Your task to perform on an android device: turn on priority inbox in the gmail app Image 0: 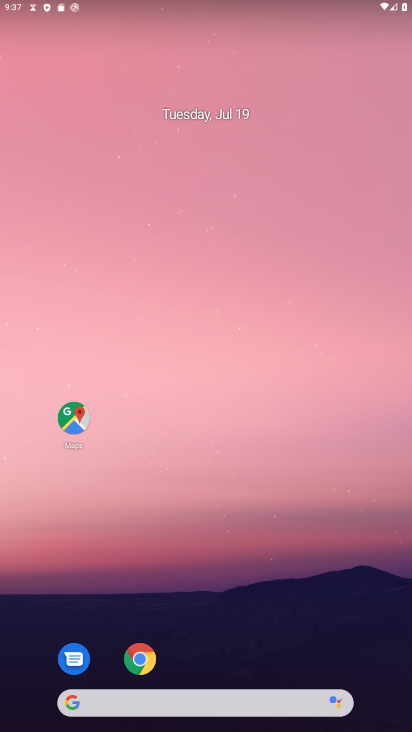
Step 0: drag from (227, 625) to (223, 217)
Your task to perform on an android device: turn on priority inbox in the gmail app Image 1: 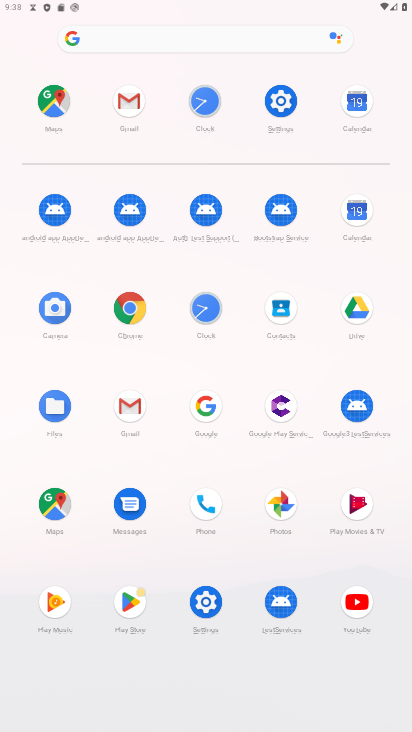
Step 1: click (135, 402)
Your task to perform on an android device: turn on priority inbox in the gmail app Image 2: 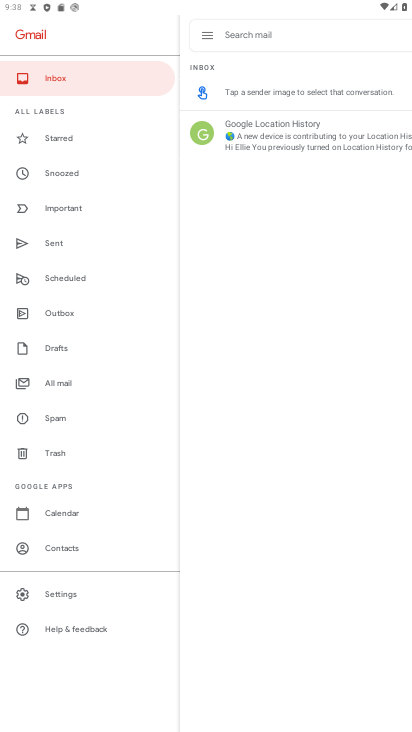
Step 2: drag from (237, 508) to (258, 270)
Your task to perform on an android device: turn on priority inbox in the gmail app Image 3: 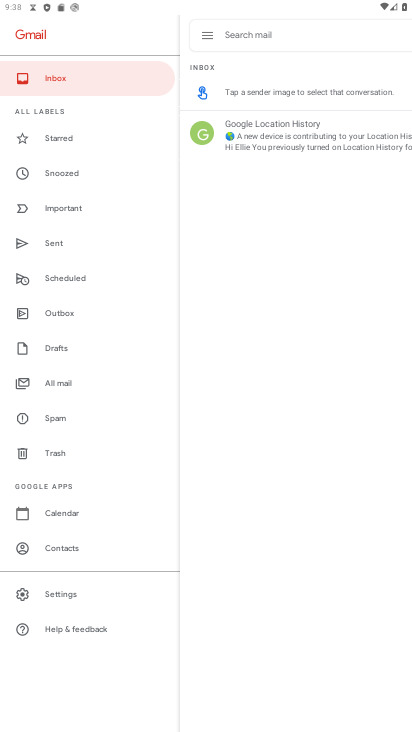
Step 3: drag from (340, 594) to (316, 442)
Your task to perform on an android device: turn on priority inbox in the gmail app Image 4: 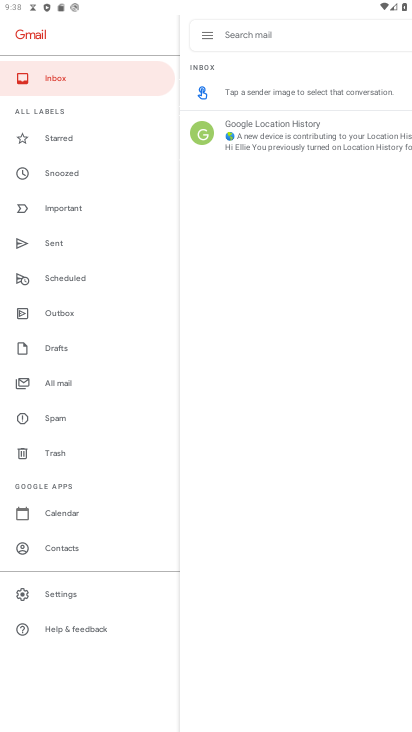
Step 4: drag from (120, 554) to (143, 213)
Your task to perform on an android device: turn on priority inbox in the gmail app Image 5: 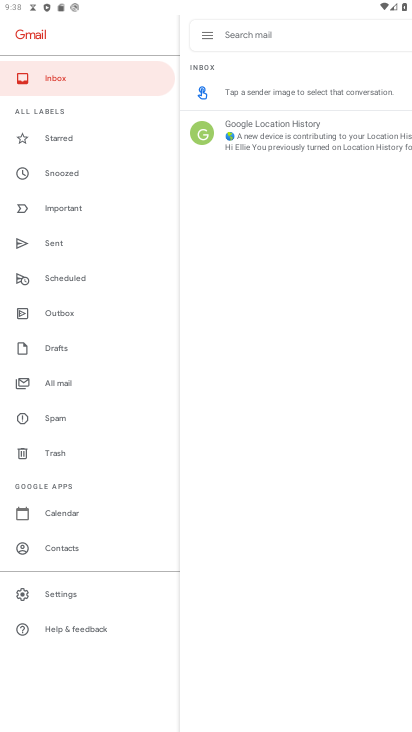
Step 5: click (60, 596)
Your task to perform on an android device: turn on priority inbox in the gmail app Image 6: 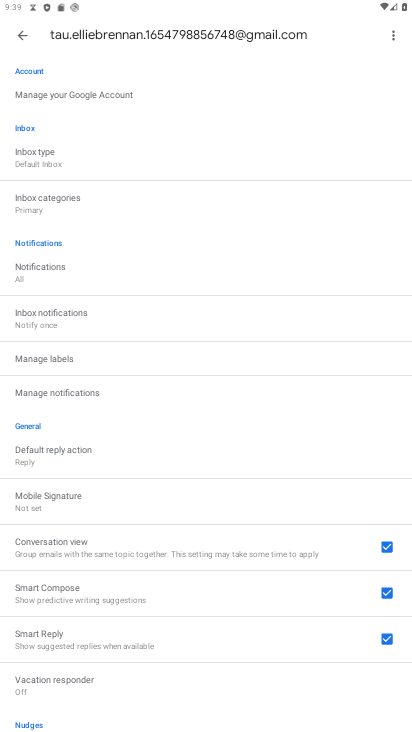
Step 6: click (51, 159)
Your task to perform on an android device: turn on priority inbox in the gmail app Image 7: 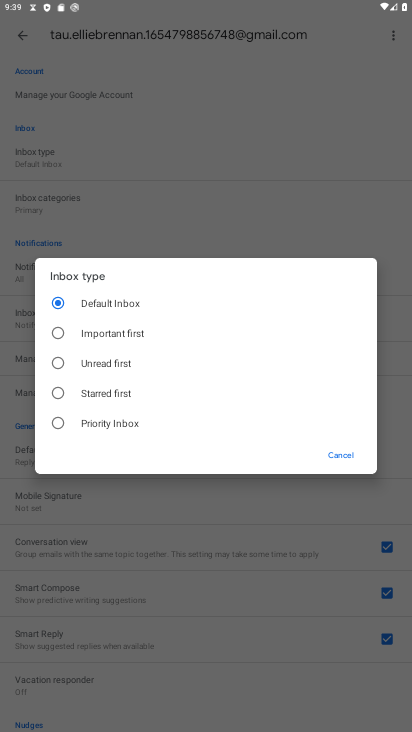
Step 7: click (373, 437)
Your task to perform on an android device: turn on priority inbox in the gmail app Image 8: 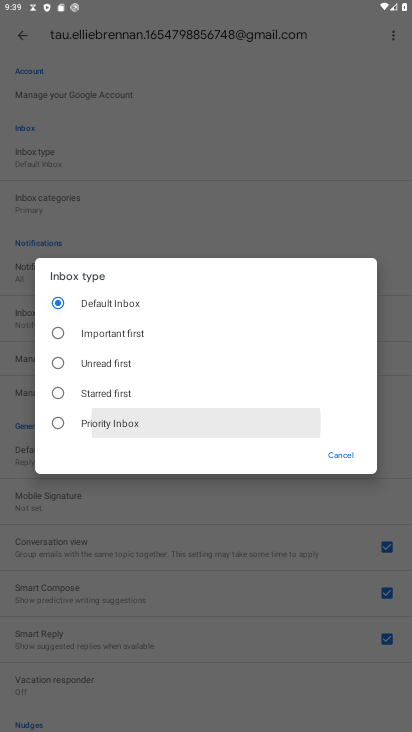
Step 8: click (350, 450)
Your task to perform on an android device: turn on priority inbox in the gmail app Image 9: 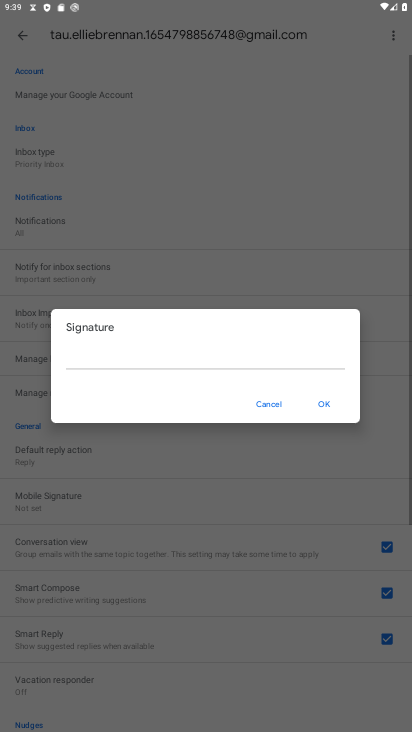
Step 9: drag from (218, 518) to (170, 163)
Your task to perform on an android device: turn on priority inbox in the gmail app Image 10: 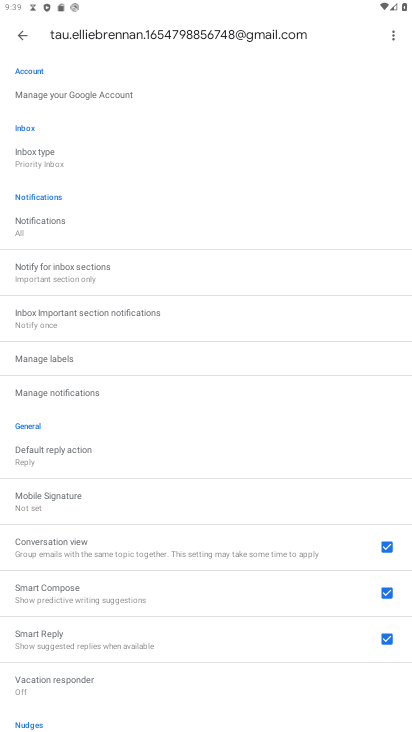
Step 10: drag from (223, 580) to (247, 402)
Your task to perform on an android device: turn on priority inbox in the gmail app Image 11: 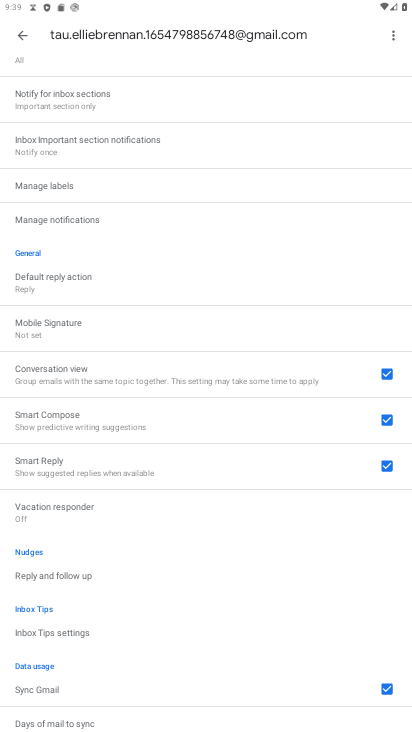
Step 11: drag from (185, 288) to (252, 702)
Your task to perform on an android device: turn on priority inbox in the gmail app Image 12: 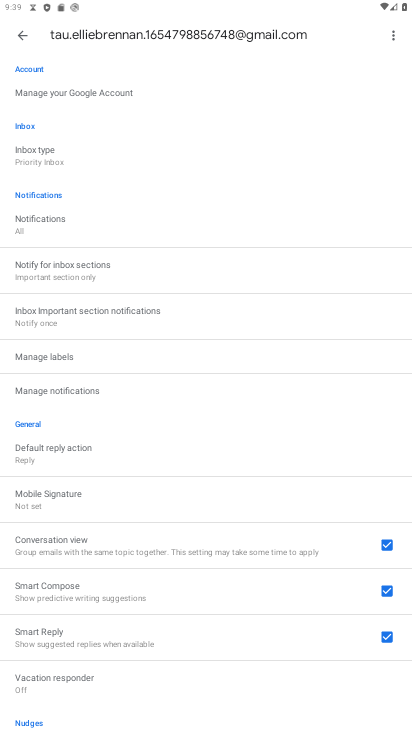
Step 12: click (95, 150)
Your task to perform on an android device: turn on priority inbox in the gmail app Image 13: 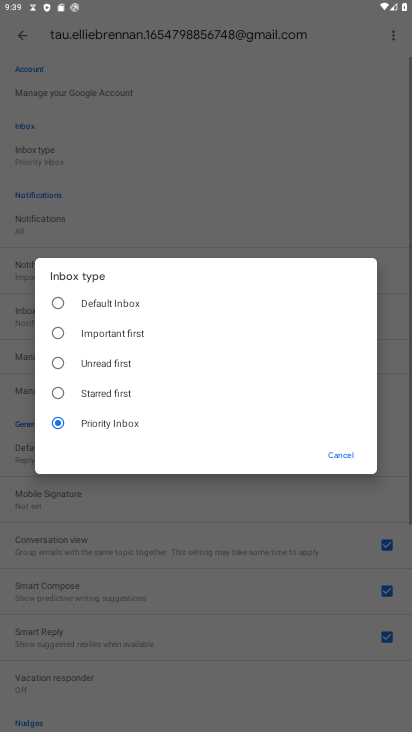
Step 13: task complete